Your task to perform on an android device: star an email in the gmail app Image 0: 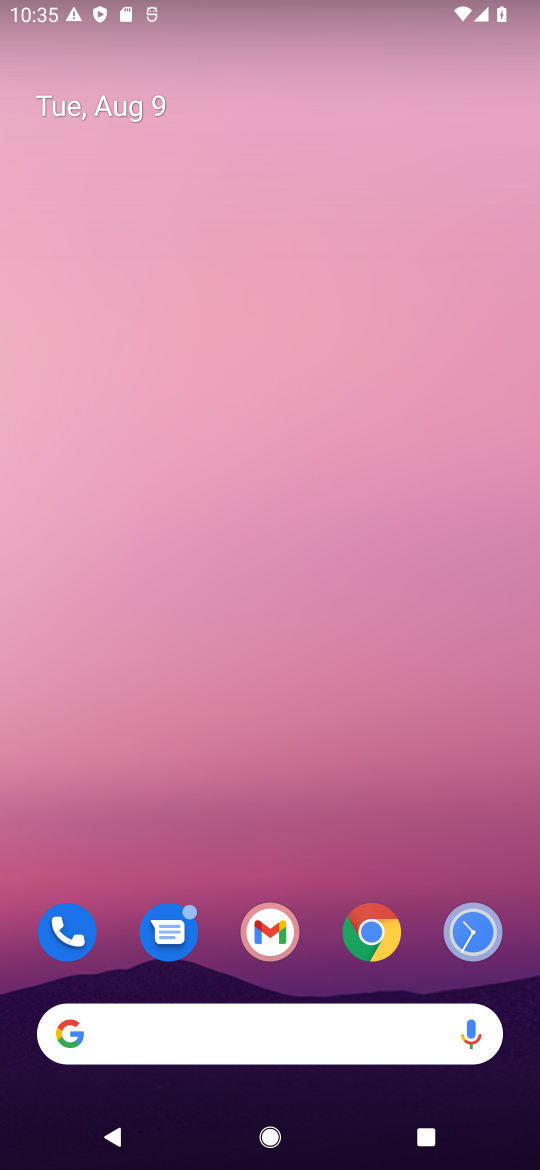
Step 0: drag from (228, 872) to (247, 318)
Your task to perform on an android device: star an email in the gmail app Image 1: 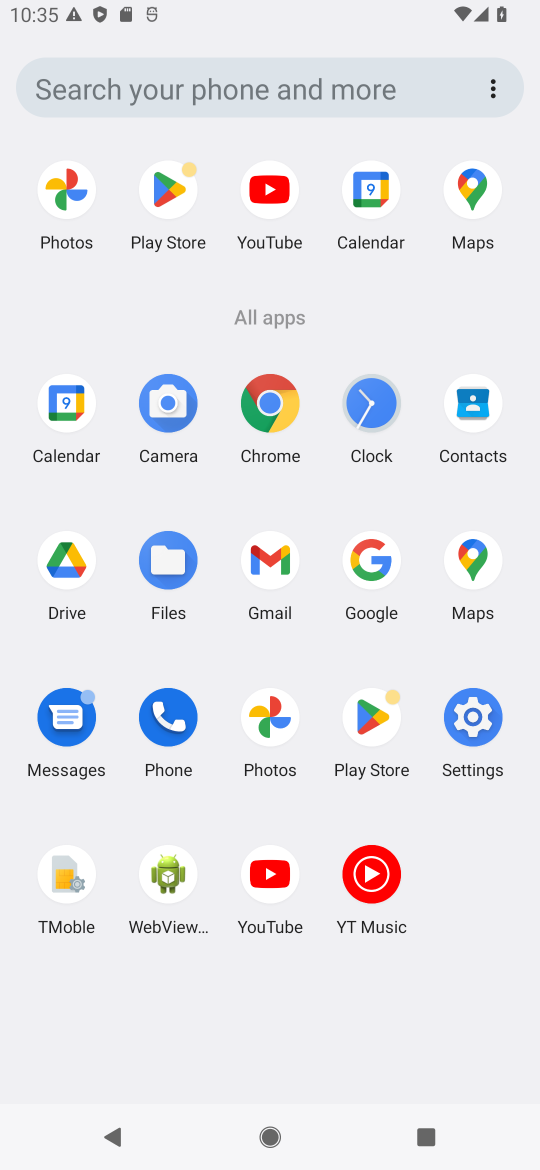
Step 1: click (280, 592)
Your task to perform on an android device: star an email in the gmail app Image 2: 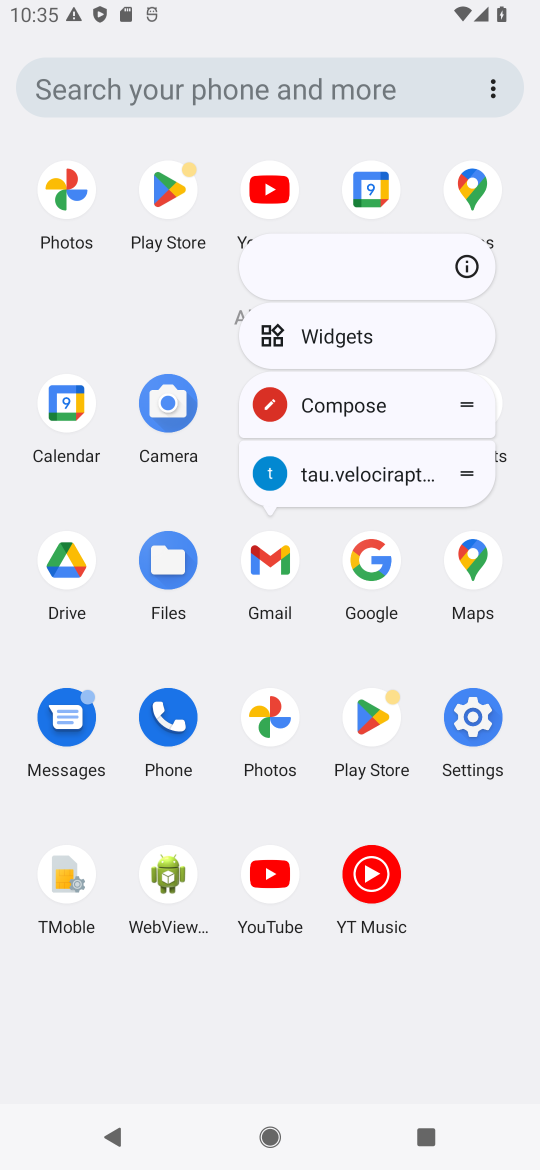
Step 2: click (282, 601)
Your task to perform on an android device: star an email in the gmail app Image 3: 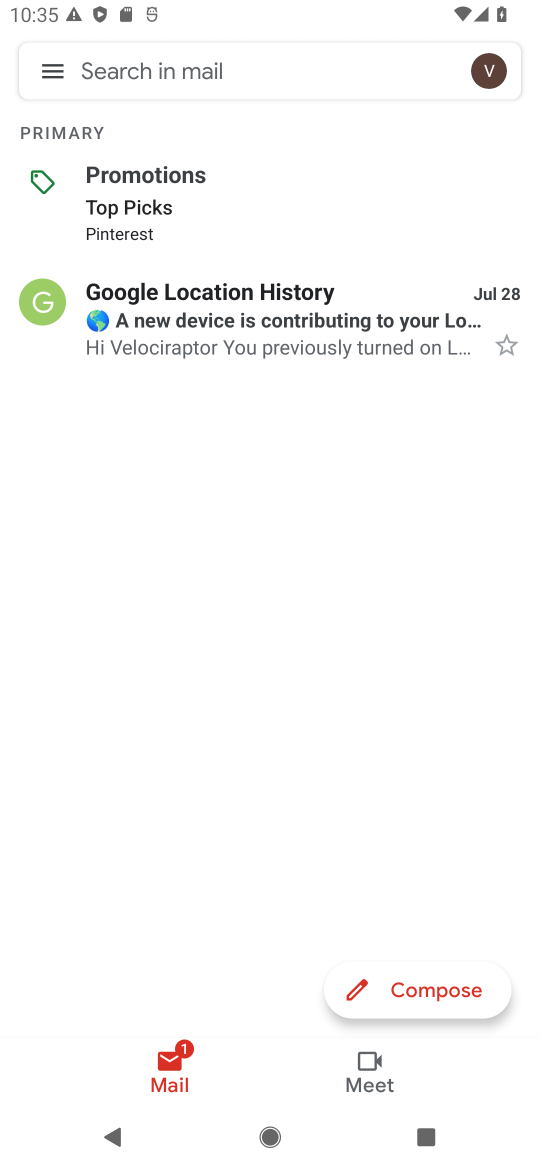
Step 3: click (506, 344)
Your task to perform on an android device: star an email in the gmail app Image 4: 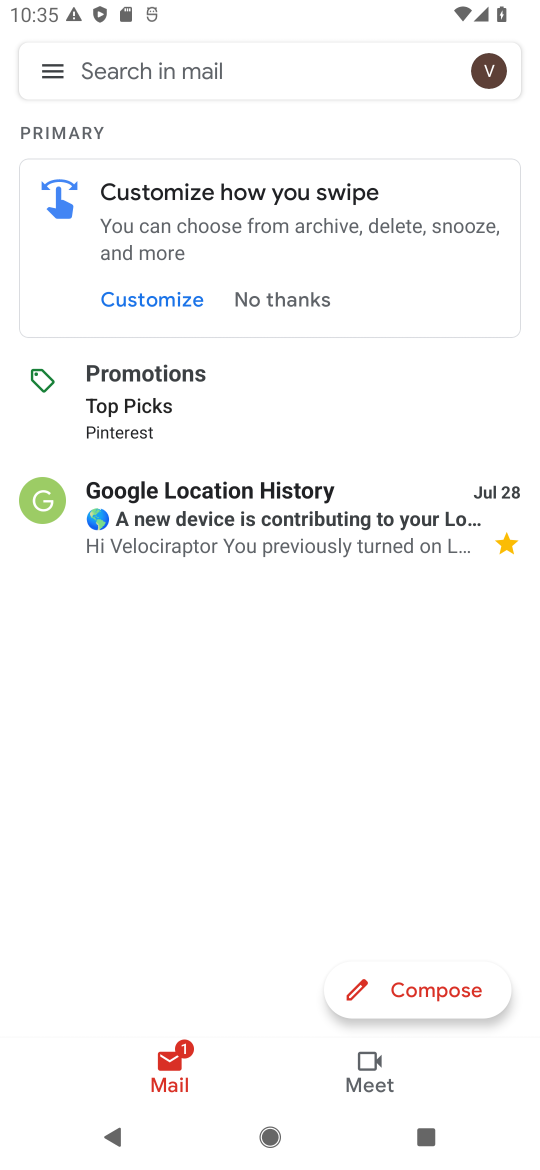
Step 4: task complete